Your task to perform on an android device: Open Chrome and go to settings Image 0: 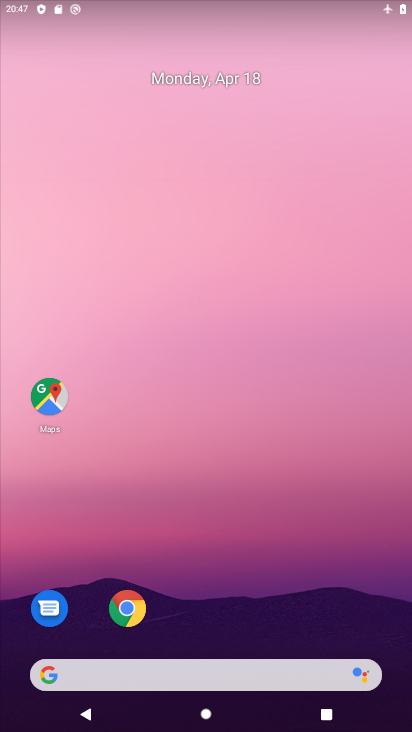
Step 0: drag from (192, 601) to (235, 190)
Your task to perform on an android device: Open Chrome and go to settings Image 1: 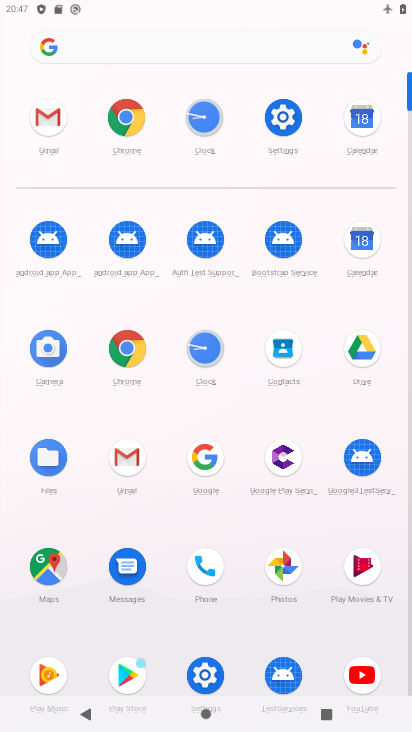
Step 1: click (124, 117)
Your task to perform on an android device: Open Chrome and go to settings Image 2: 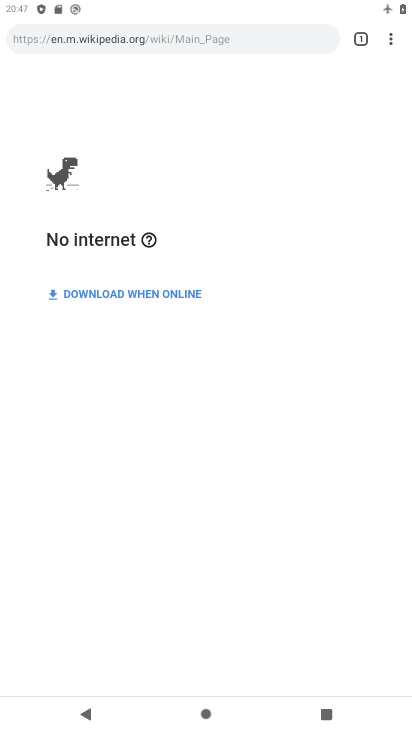
Step 2: click (390, 38)
Your task to perform on an android device: Open Chrome and go to settings Image 3: 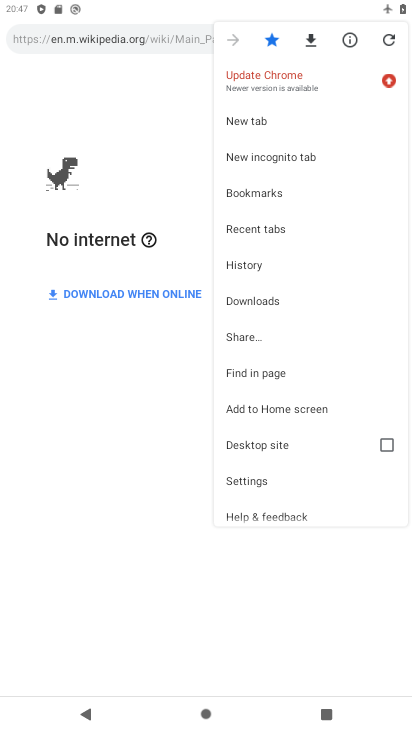
Step 3: click (253, 481)
Your task to perform on an android device: Open Chrome and go to settings Image 4: 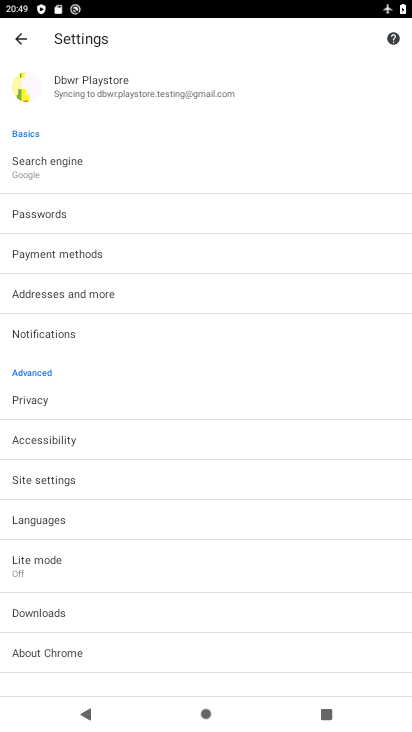
Step 4: task complete